Your task to perform on an android device: Go to Amazon Image 0: 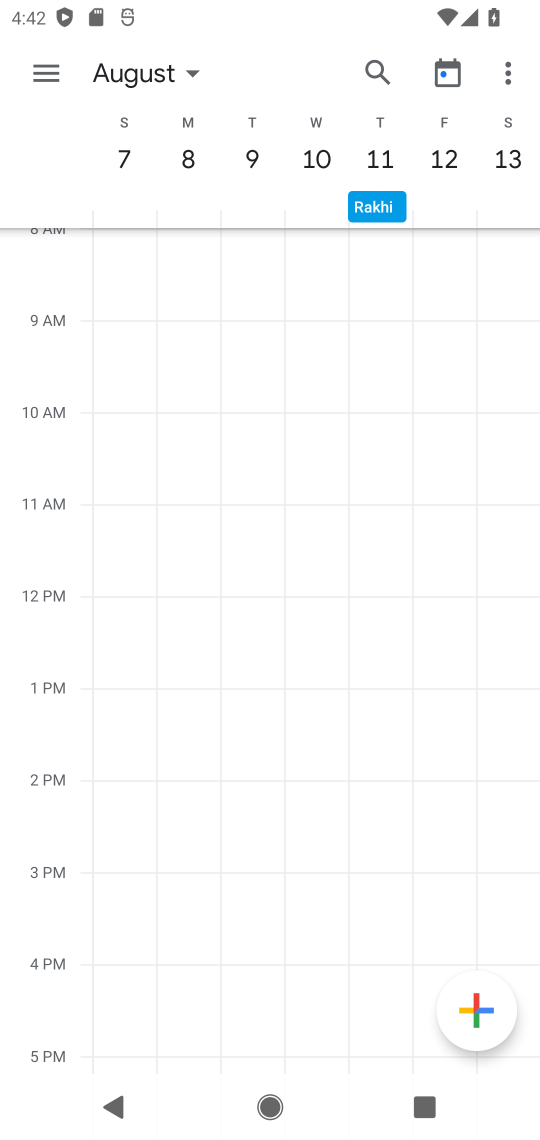
Step 0: press home button
Your task to perform on an android device: Go to Amazon Image 1: 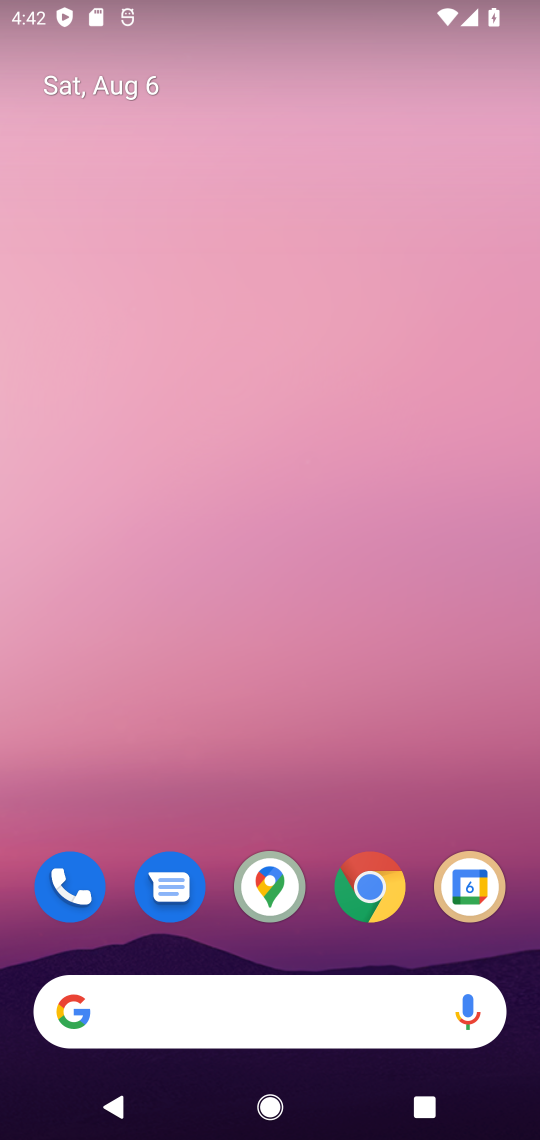
Step 1: click (379, 922)
Your task to perform on an android device: Go to Amazon Image 2: 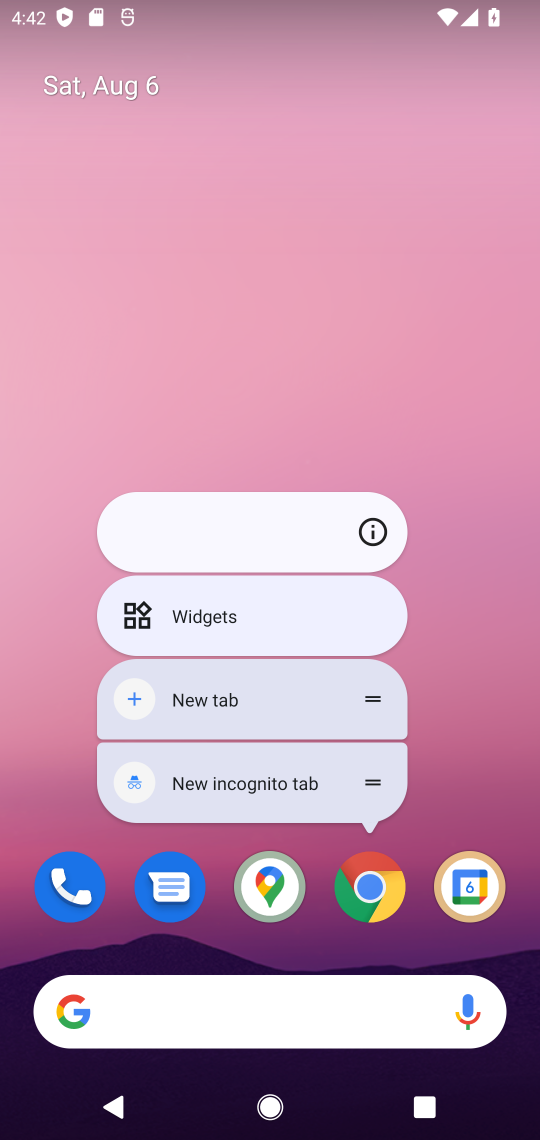
Step 2: click (365, 893)
Your task to perform on an android device: Go to Amazon Image 3: 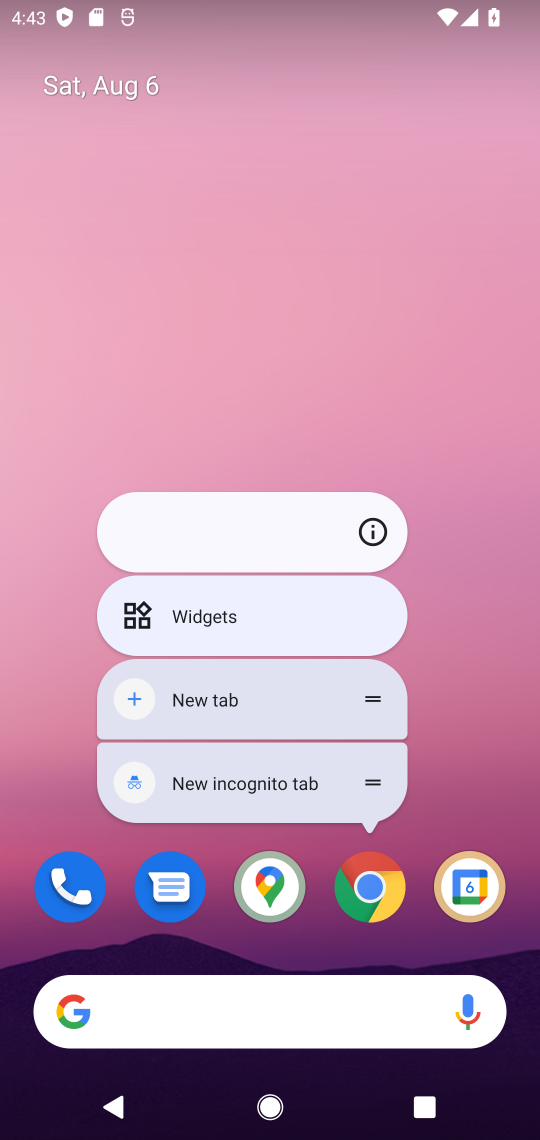
Step 3: click (368, 893)
Your task to perform on an android device: Go to Amazon Image 4: 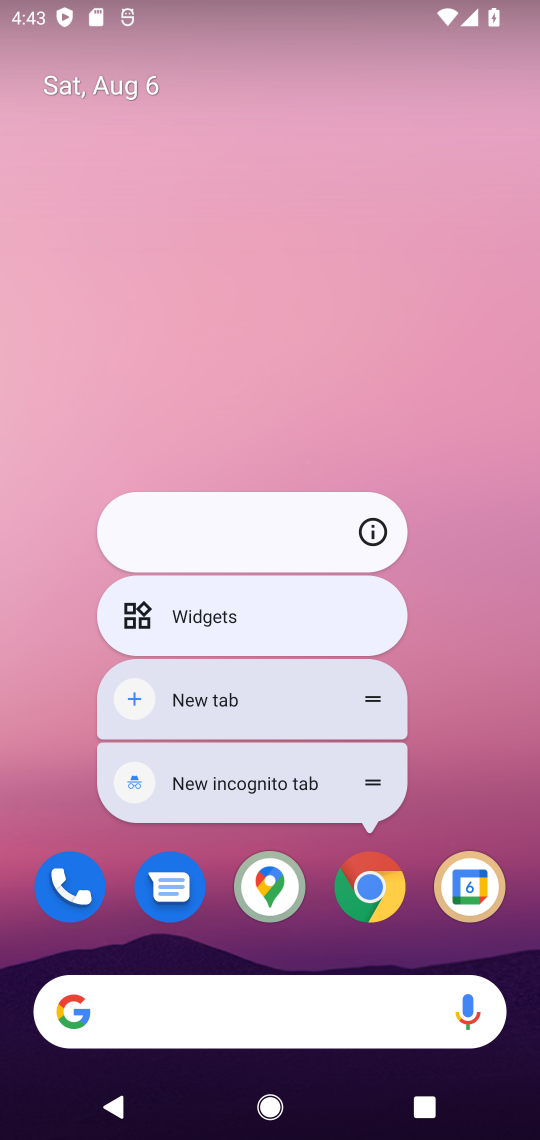
Step 4: click (368, 893)
Your task to perform on an android device: Go to Amazon Image 5: 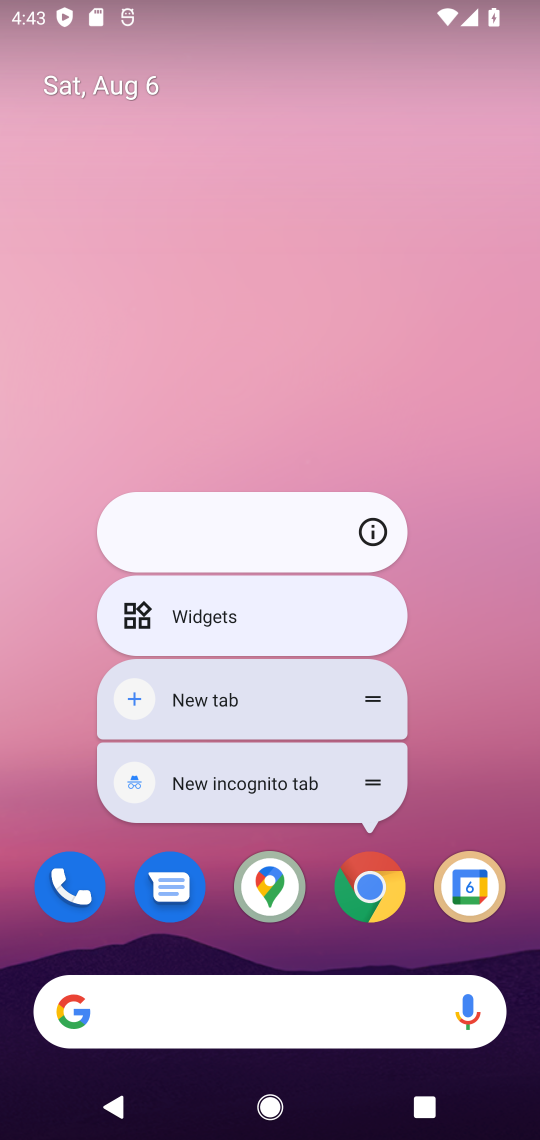
Step 5: click (377, 933)
Your task to perform on an android device: Go to Amazon Image 6: 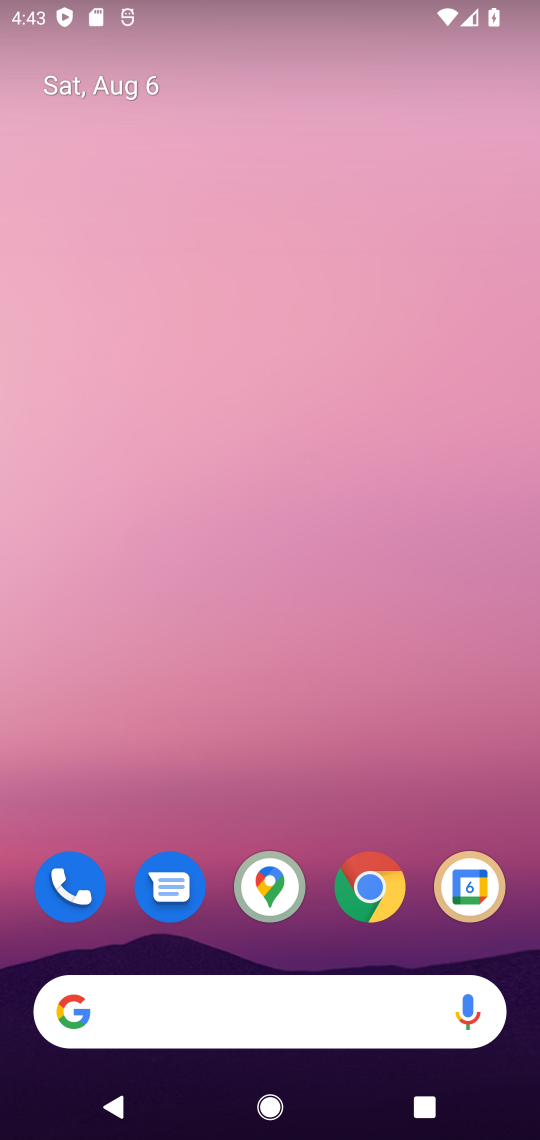
Step 6: click (372, 905)
Your task to perform on an android device: Go to Amazon Image 7: 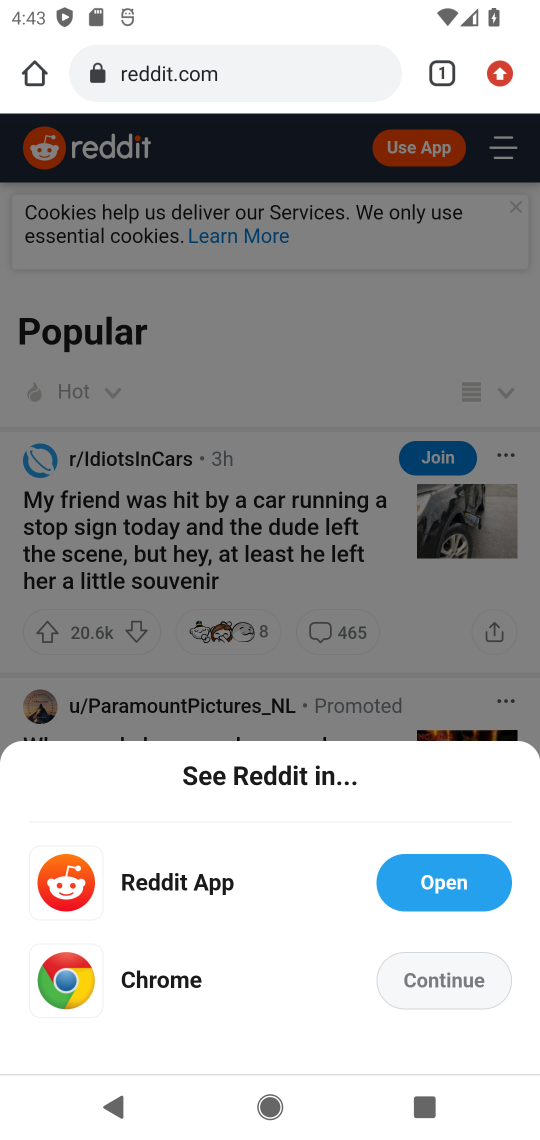
Step 7: click (247, 83)
Your task to perform on an android device: Go to Amazon Image 8: 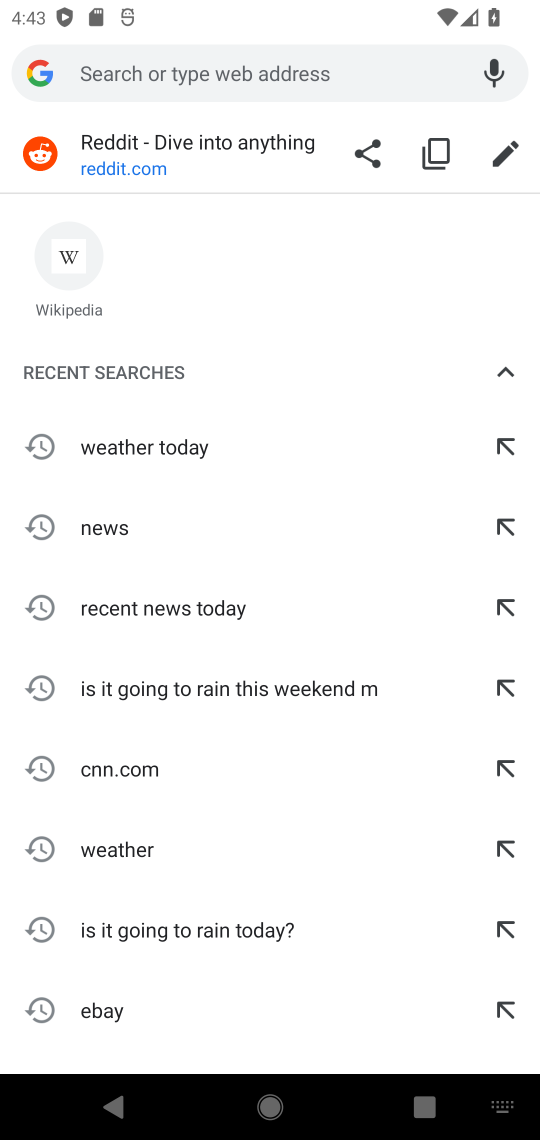
Step 8: type "amazon"
Your task to perform on an android device: Go to Amazon Image 9: 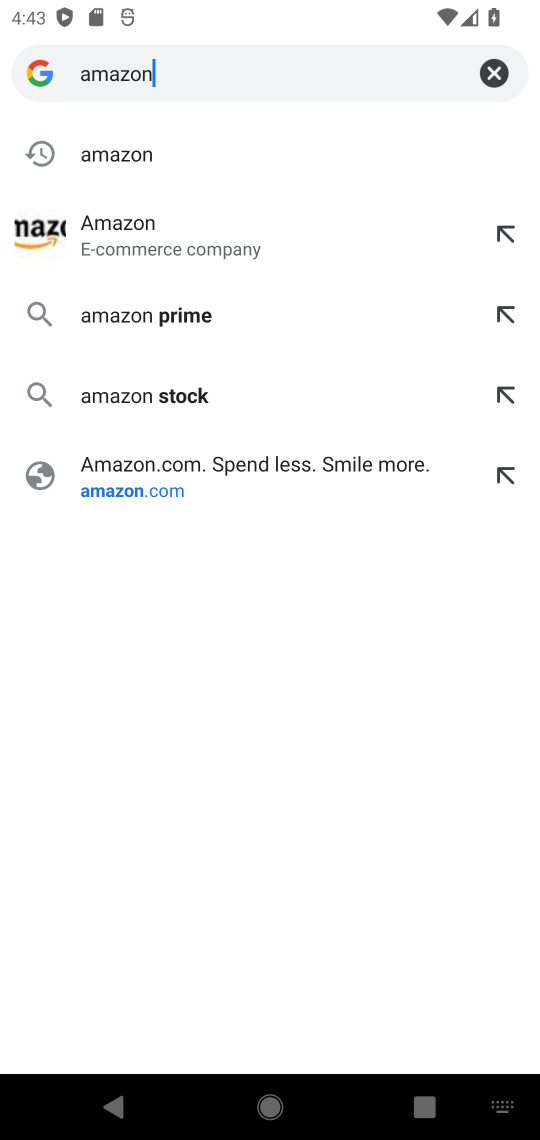
Step 9: click (247, 474)
Your task to perform on an android device: Go to Amazon Image 10: 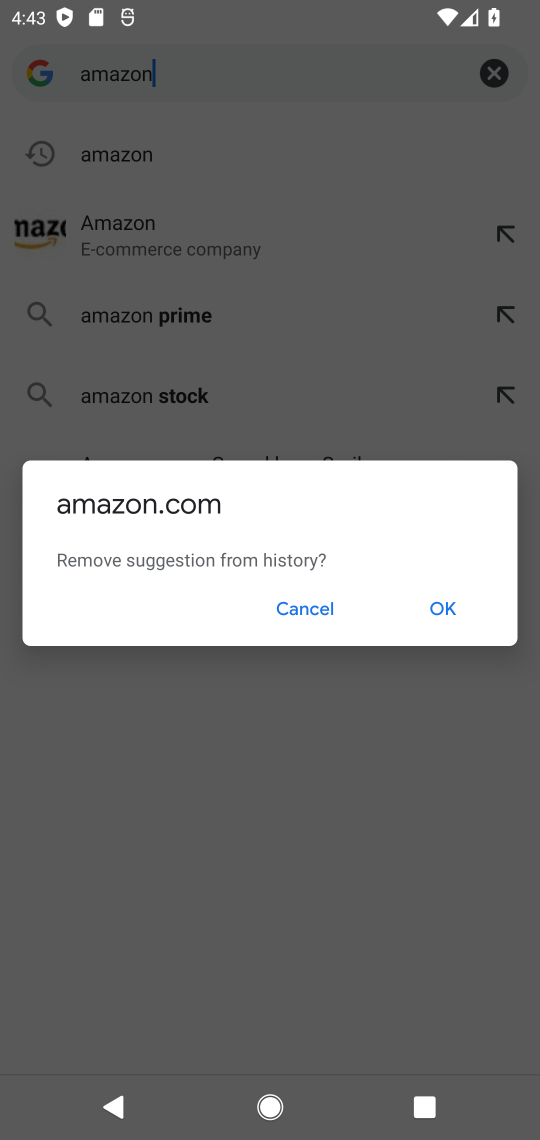
Step 10: click (273, 618)
Your task to perform on an android device: Go to Amazon Image 11: 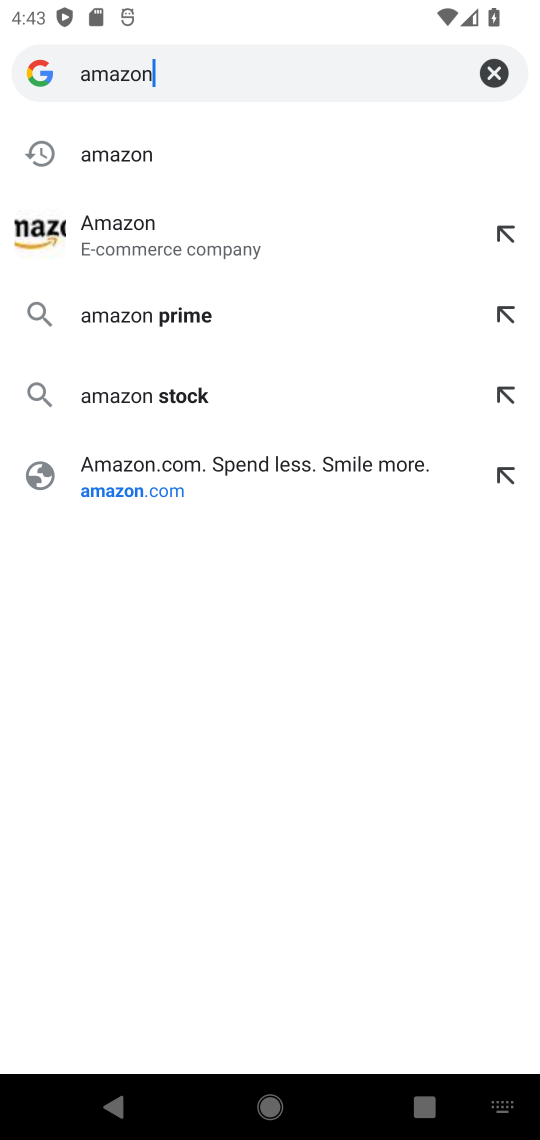
Step 11: click (154, 493)
Your task to perform on an android device: Go to Amazon Image 12: 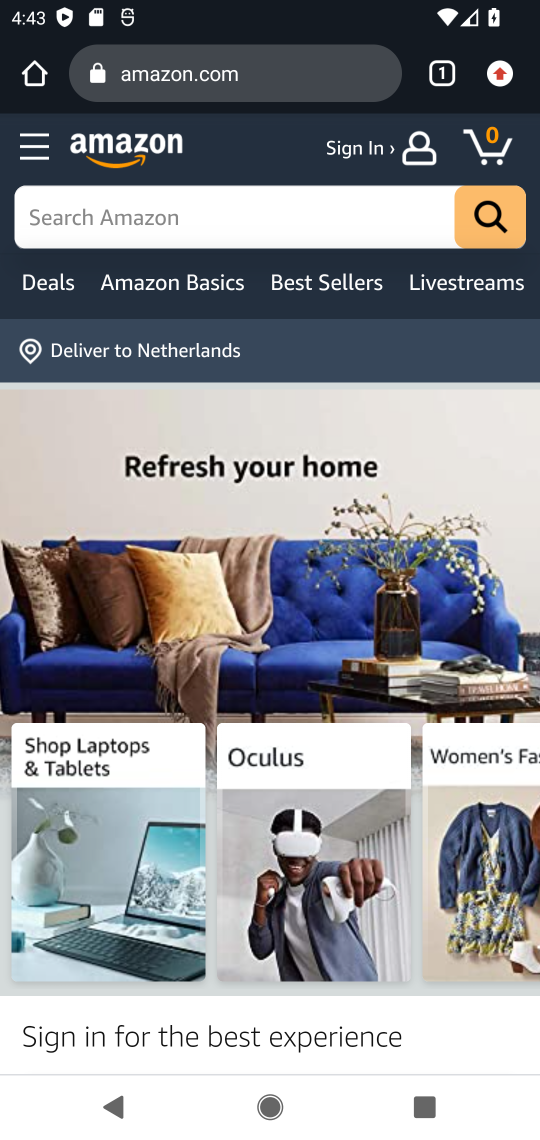
Step 12: task complete